Your task to perform on an android device: open app "Speedtest by Ookla" (install if not already installed) Image 0: 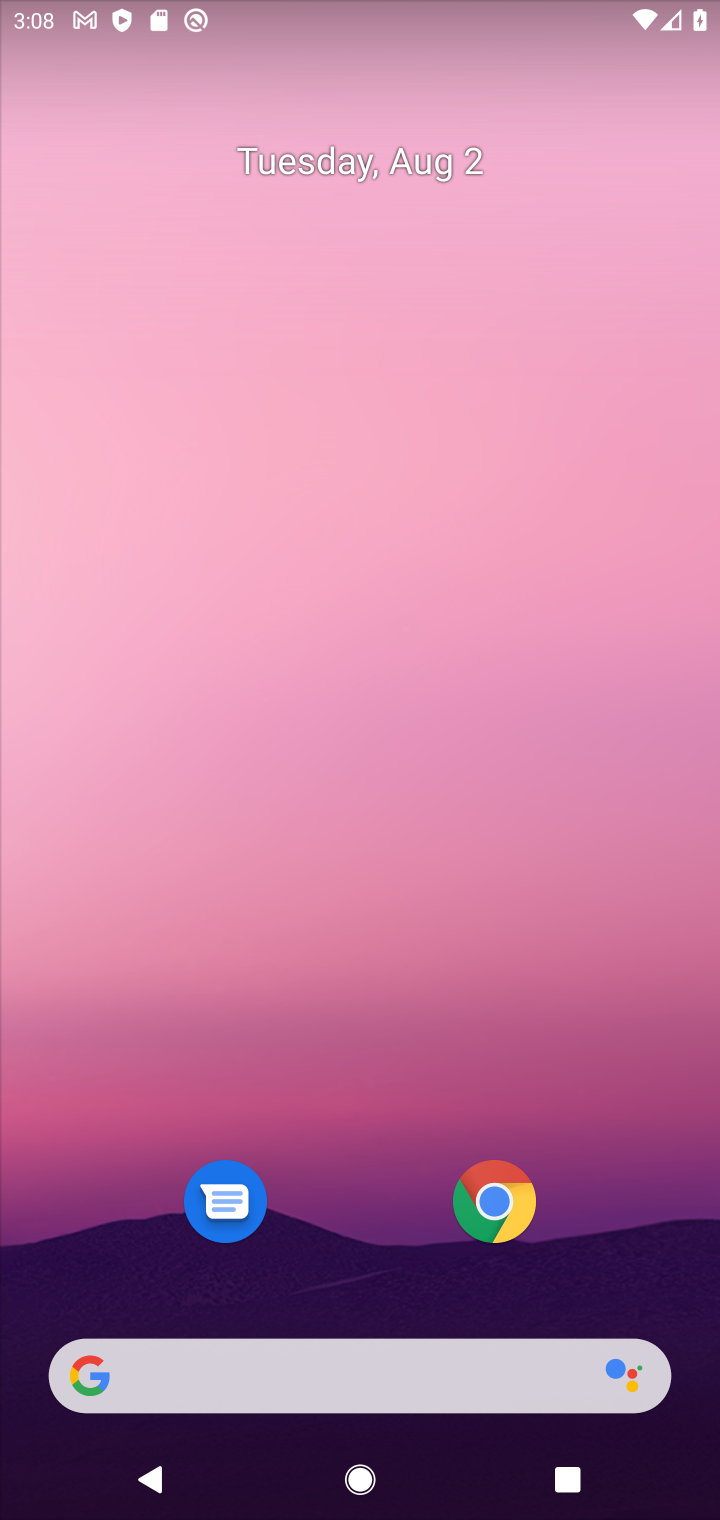
Step 0: press home button
Your task to perform on an android device: open app "Speedtest by Ookla" (install if not already installed) Image 1: 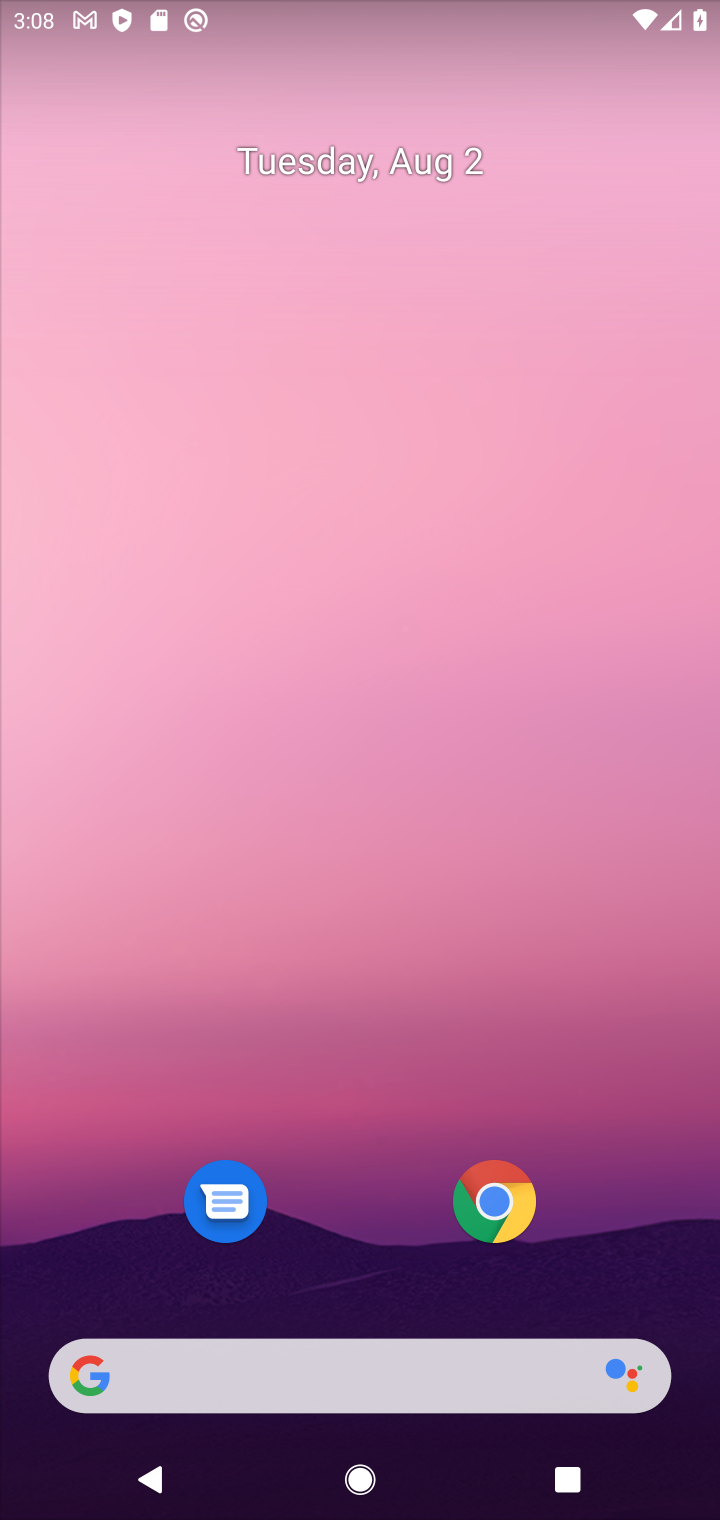
Step 1: drag from (380, 1312) to (369, 145)
Your task to perform on an android device: open app "Speedtest by Ookla" (install if not already installed) Image 2: 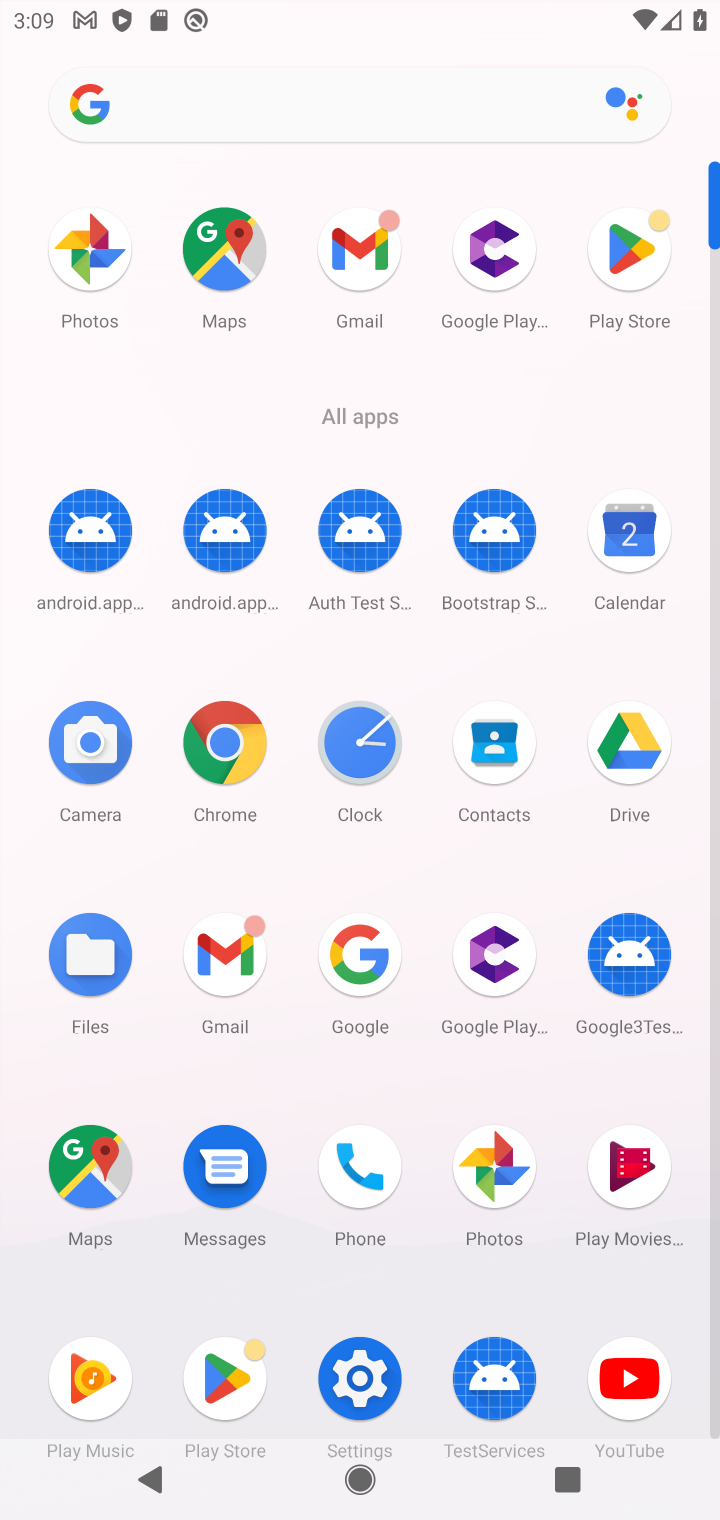
Step 2: click (613, 232)
Your task to perform on an android device: open app "Speedtest by Ookla" (install if not already installed) Image 3: 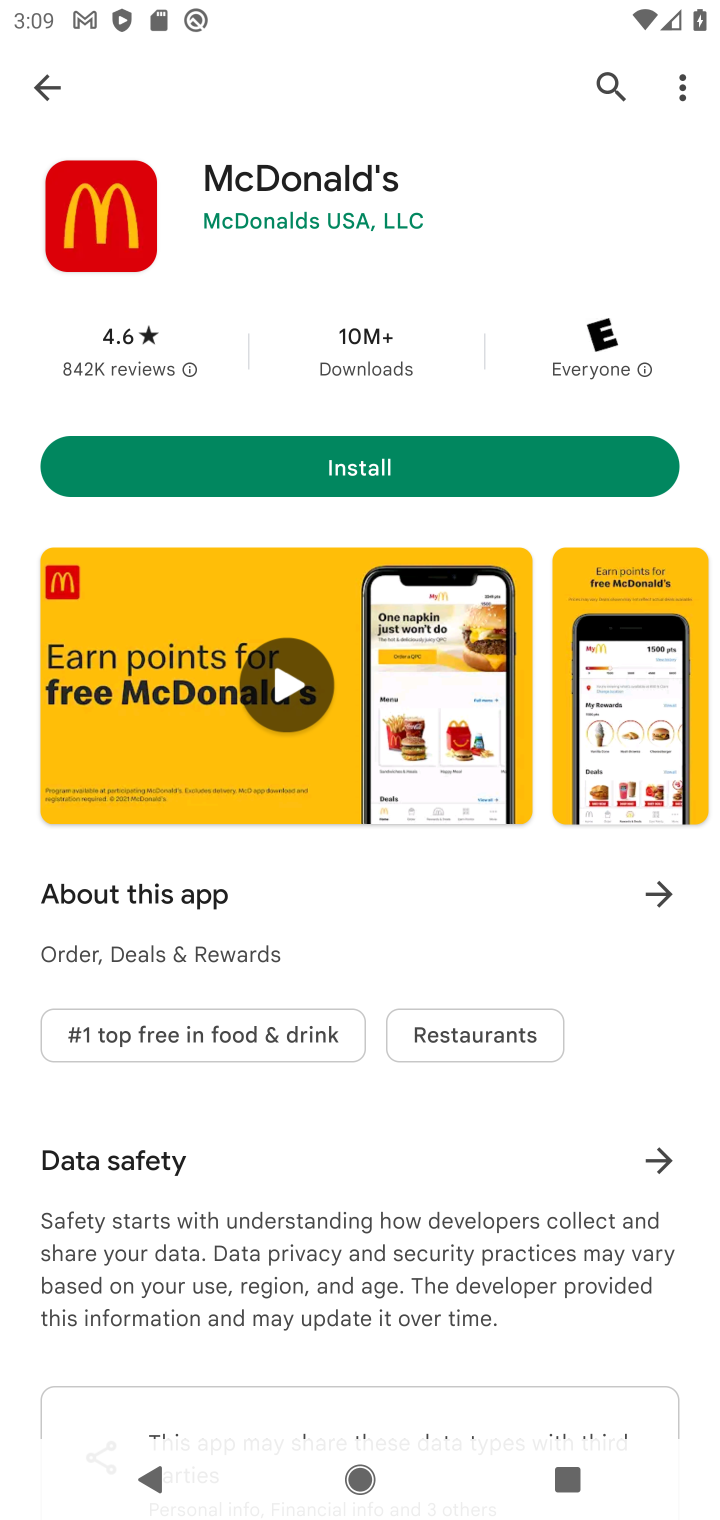
Step 3: click (608, 88)
Your task to perform on an android device: open app "Speedtest by Ookla" (install if not already installed) Image 4: 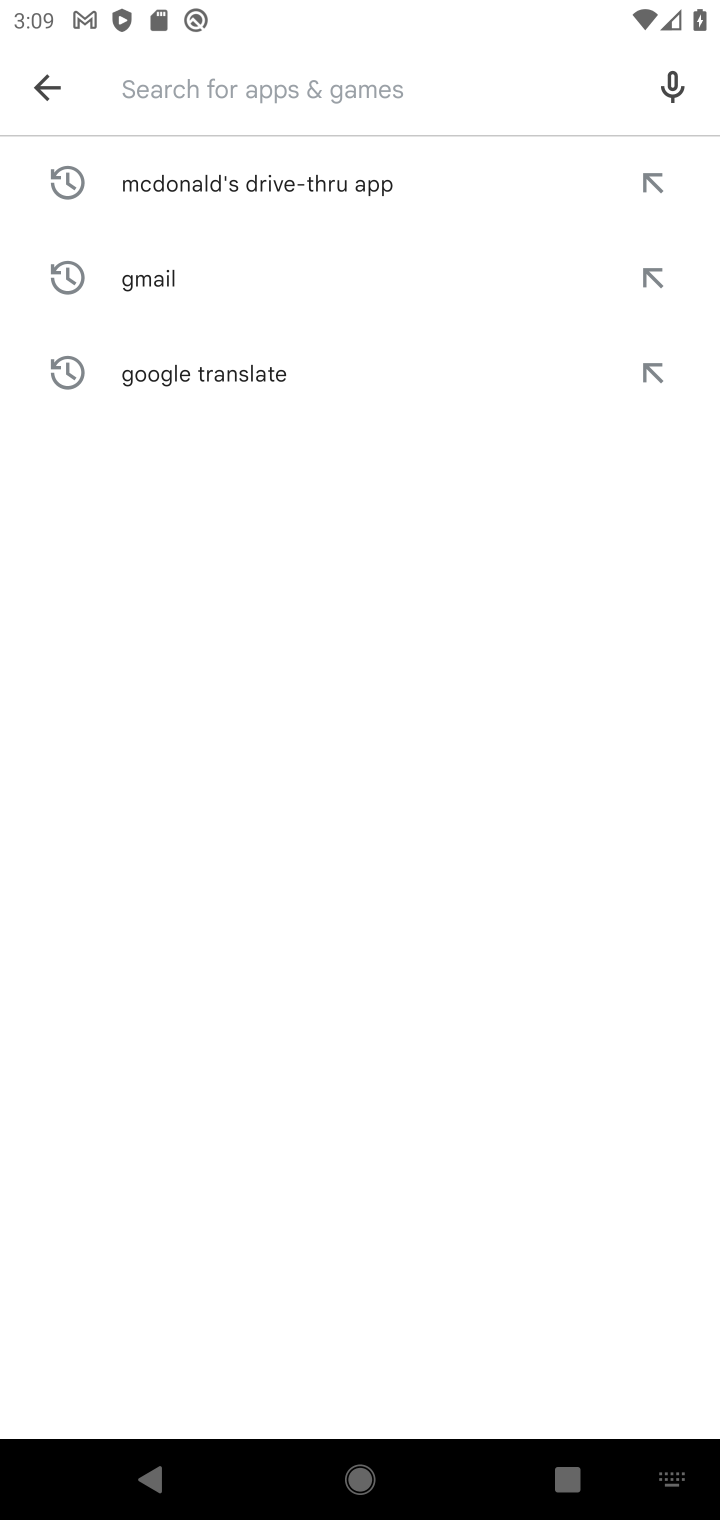
Step 4: type "Speedtest by Ookla"
Your task to perform on an android device: open app "Speedtest by Ookla" (install if not already installed) Image 5: 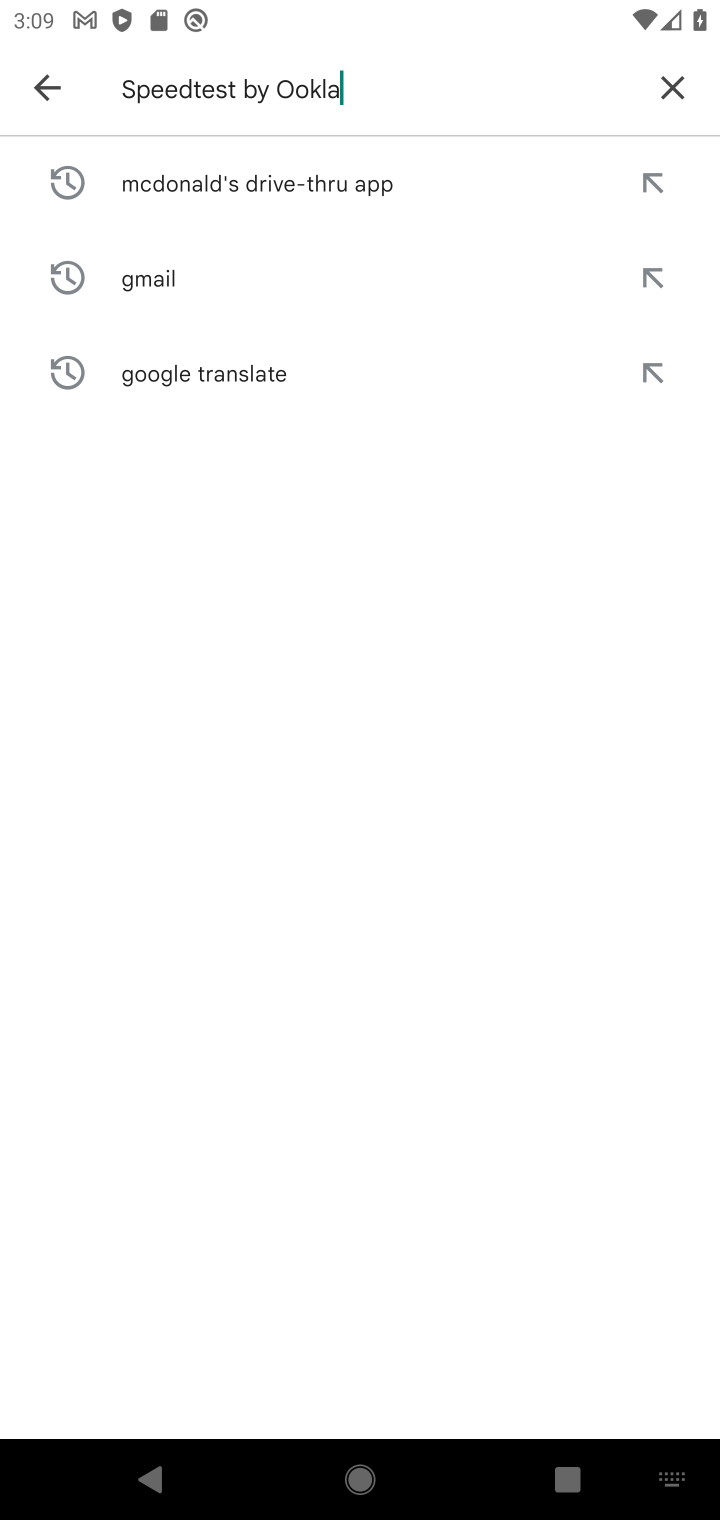
Step 5: type ""
Your task to perform on an android device: open app "Speedtest by Ookla" (install if not already installed) Image 6: 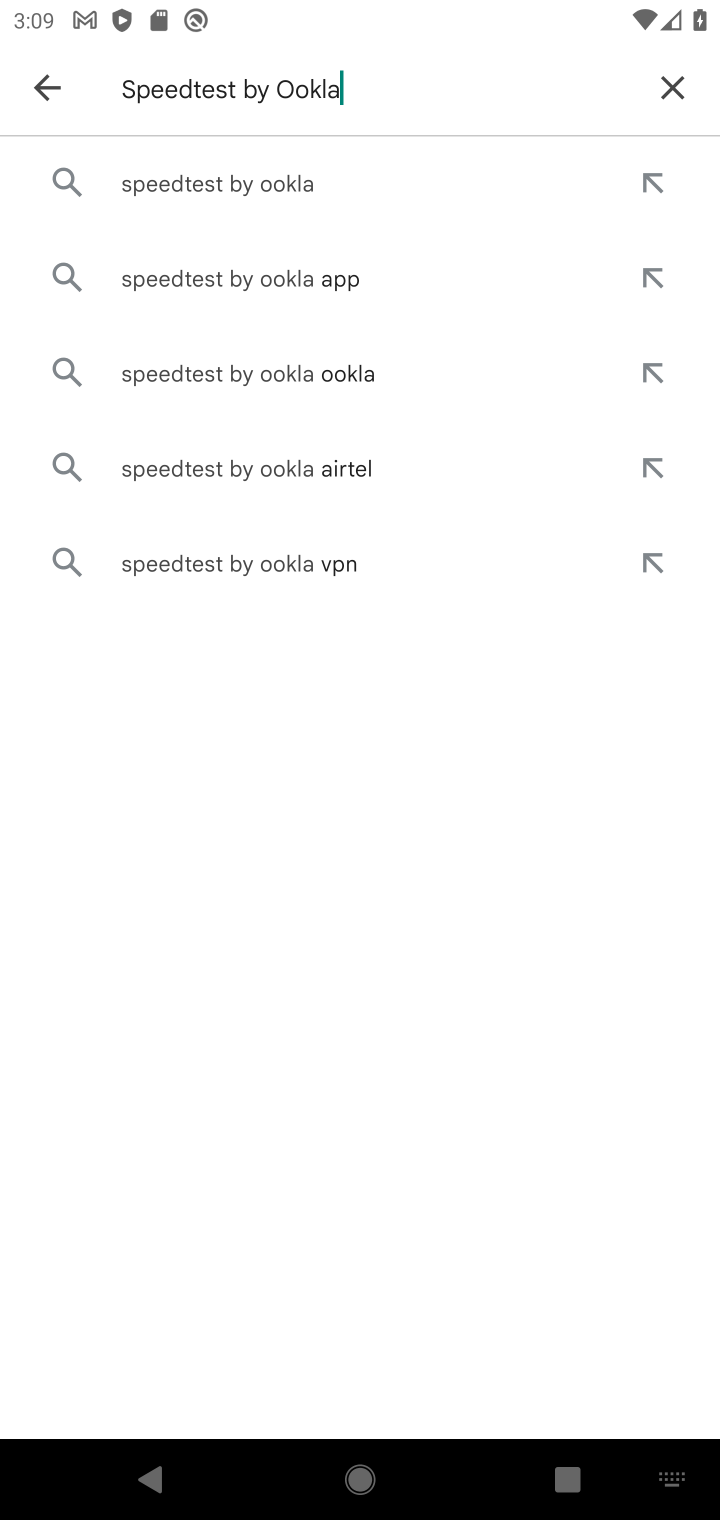
Step 6: click (293, 169)
Your task to perform on an android device: open app "Speedtest by Ookla" (install if not already installed) Image 7: 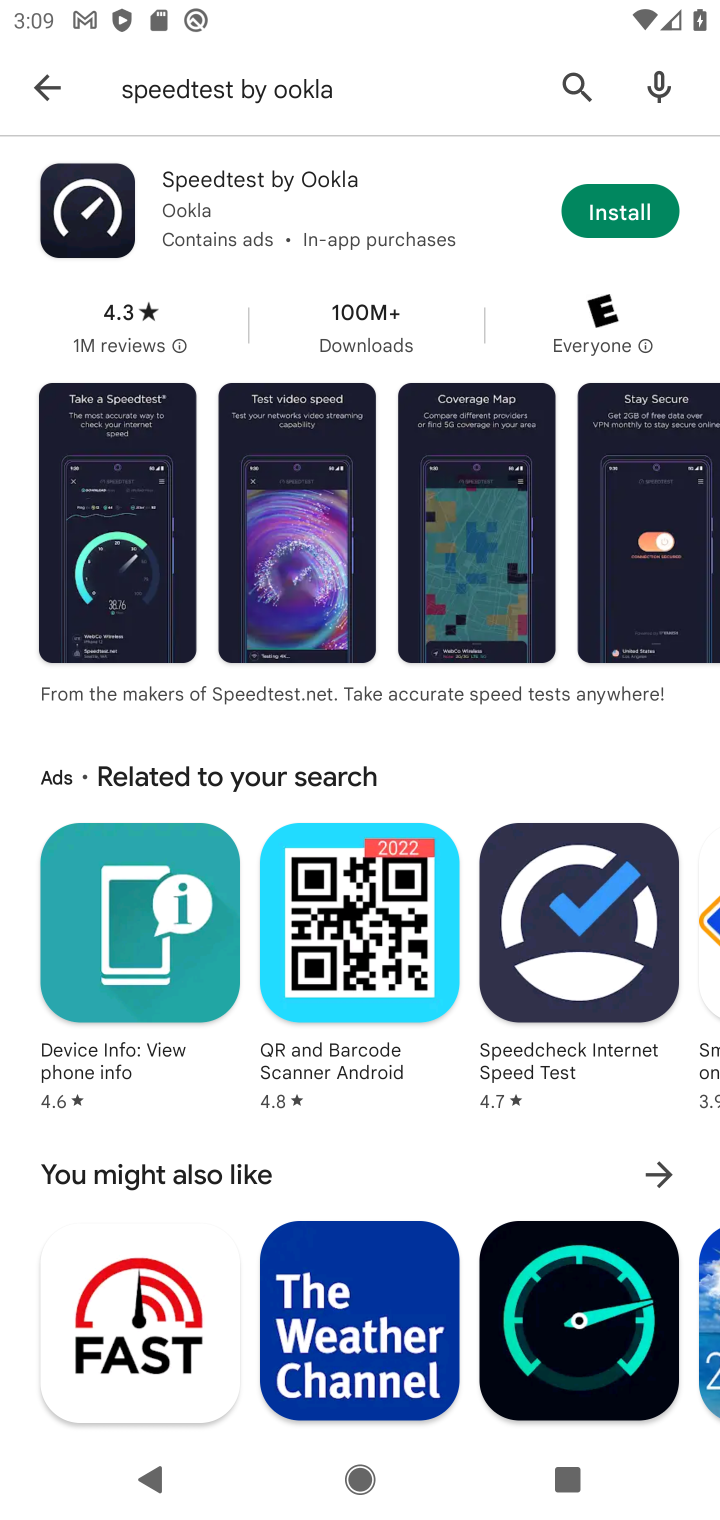
Step 7: click (625, 212)
Your task to perform on an android device: open app "Speedtest by Ookla" (install if not already installed) Image 8: 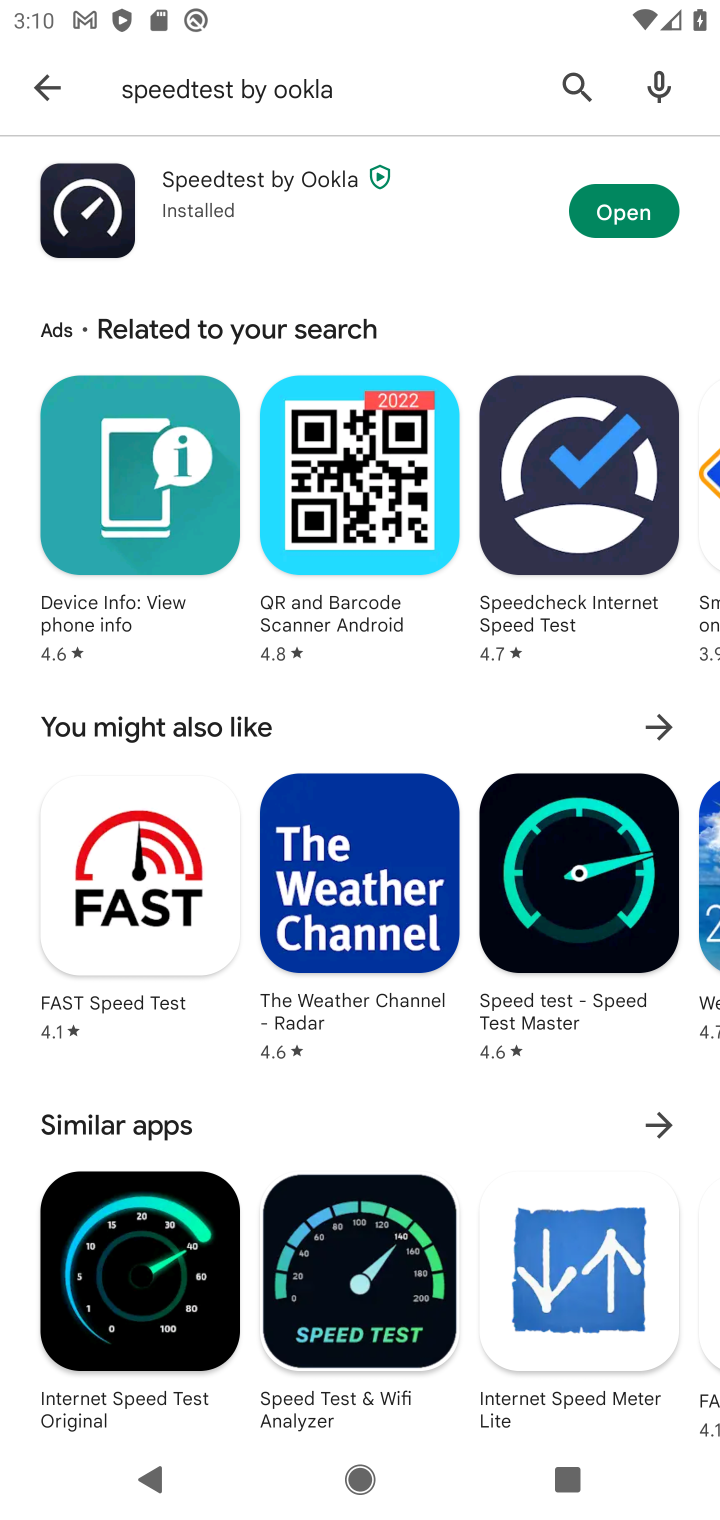
Step 8: click (629, 208)
Your task to perform on an android device: open app "Speedtest by Ookla" (install if not already installed) Image 9: 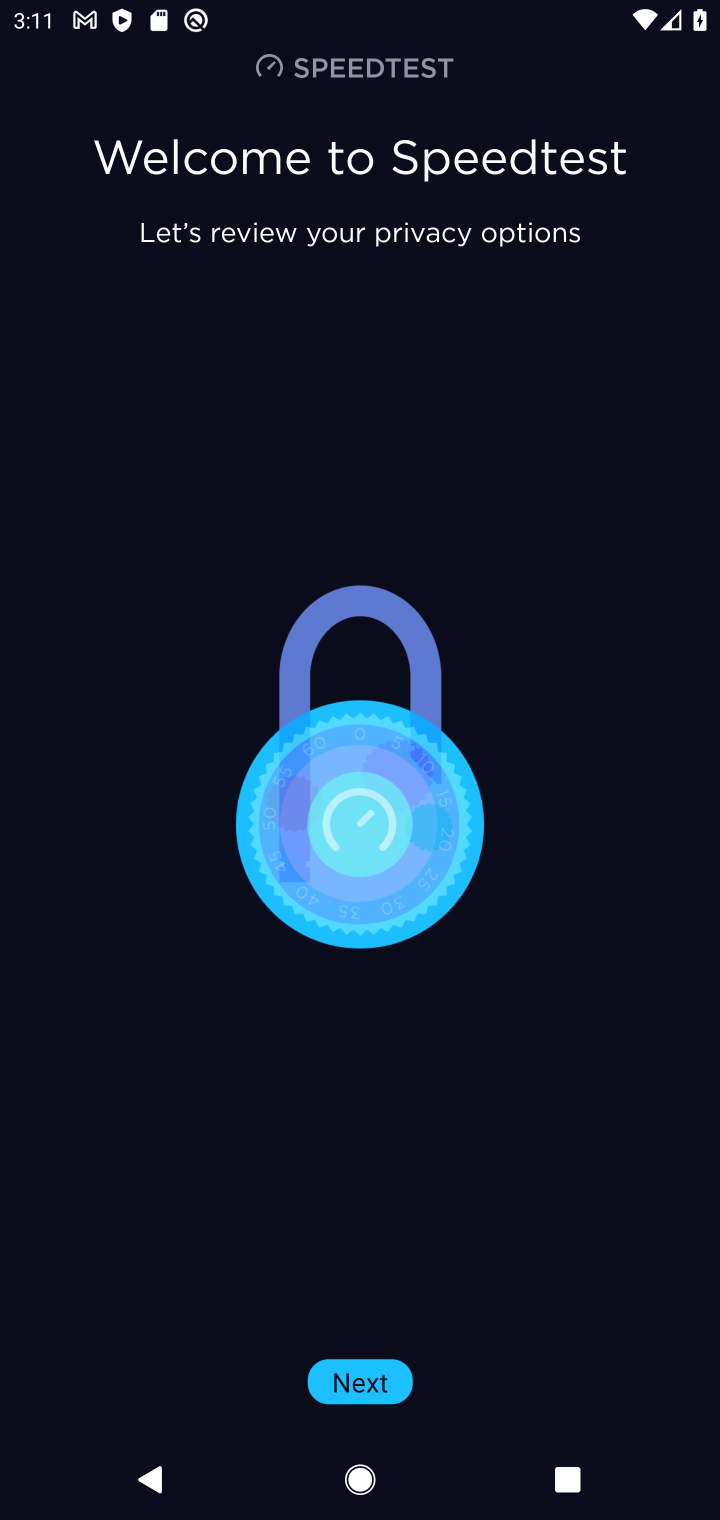
Step 9: click (374, 1381)
Your task to perform on an android device: open app "Speedtest by Ookla" (install if not already installed) Image 10: 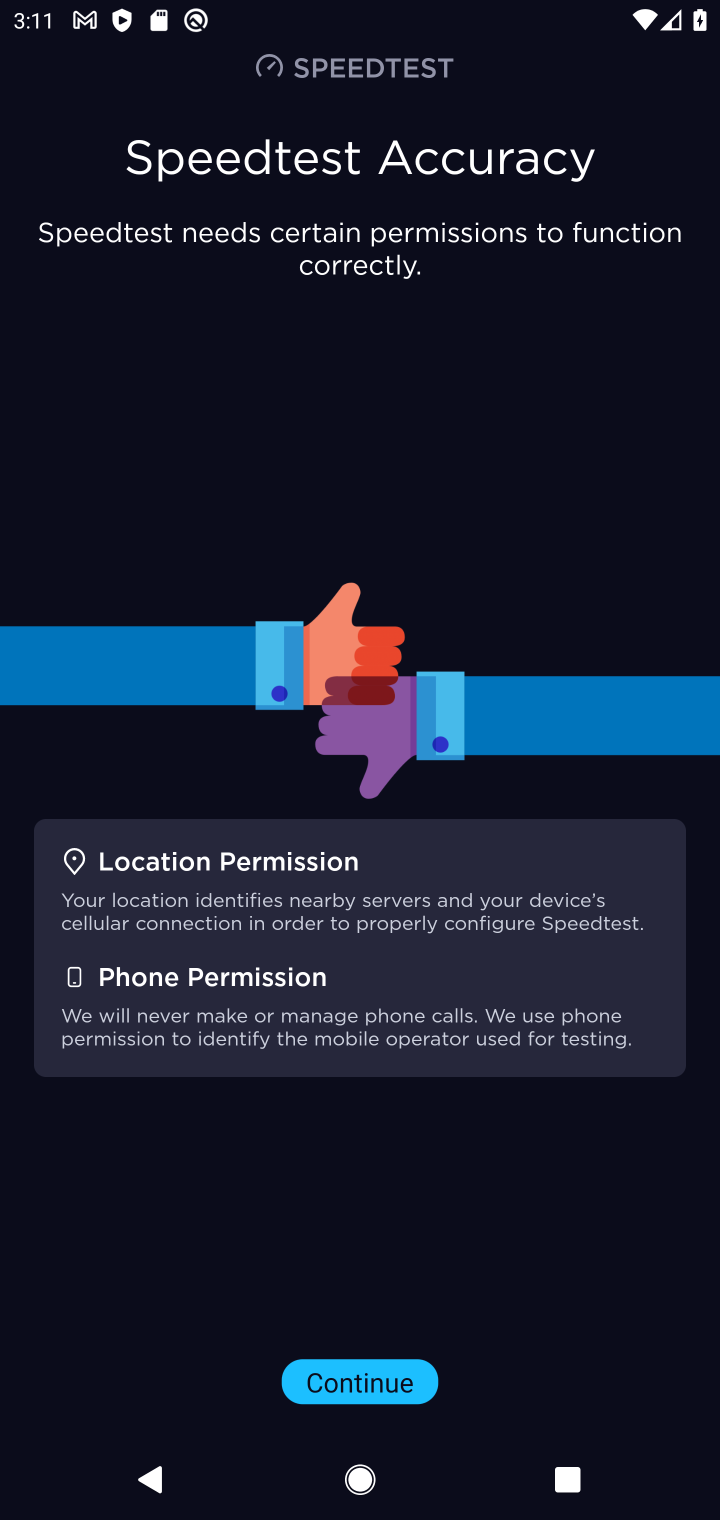
Step 10: click (361, 1377)
Your task to perform on an android device: open app "Speedtest by Ookla" (install if not already installed) Image 11: 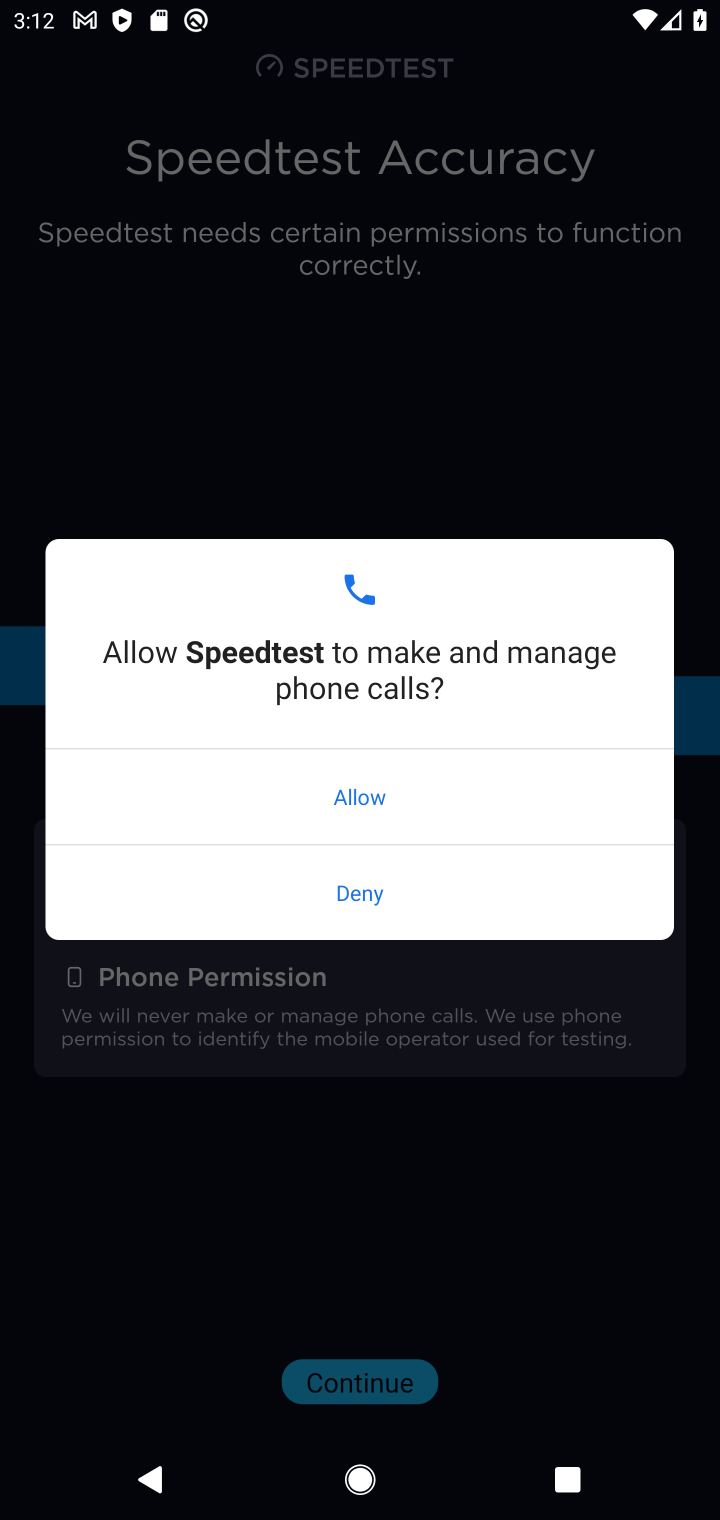
Step 11: click (380, 795)
Your task to perform on an android device: open app "Speedtest by Ookla" (install if not already installed) Image 12: 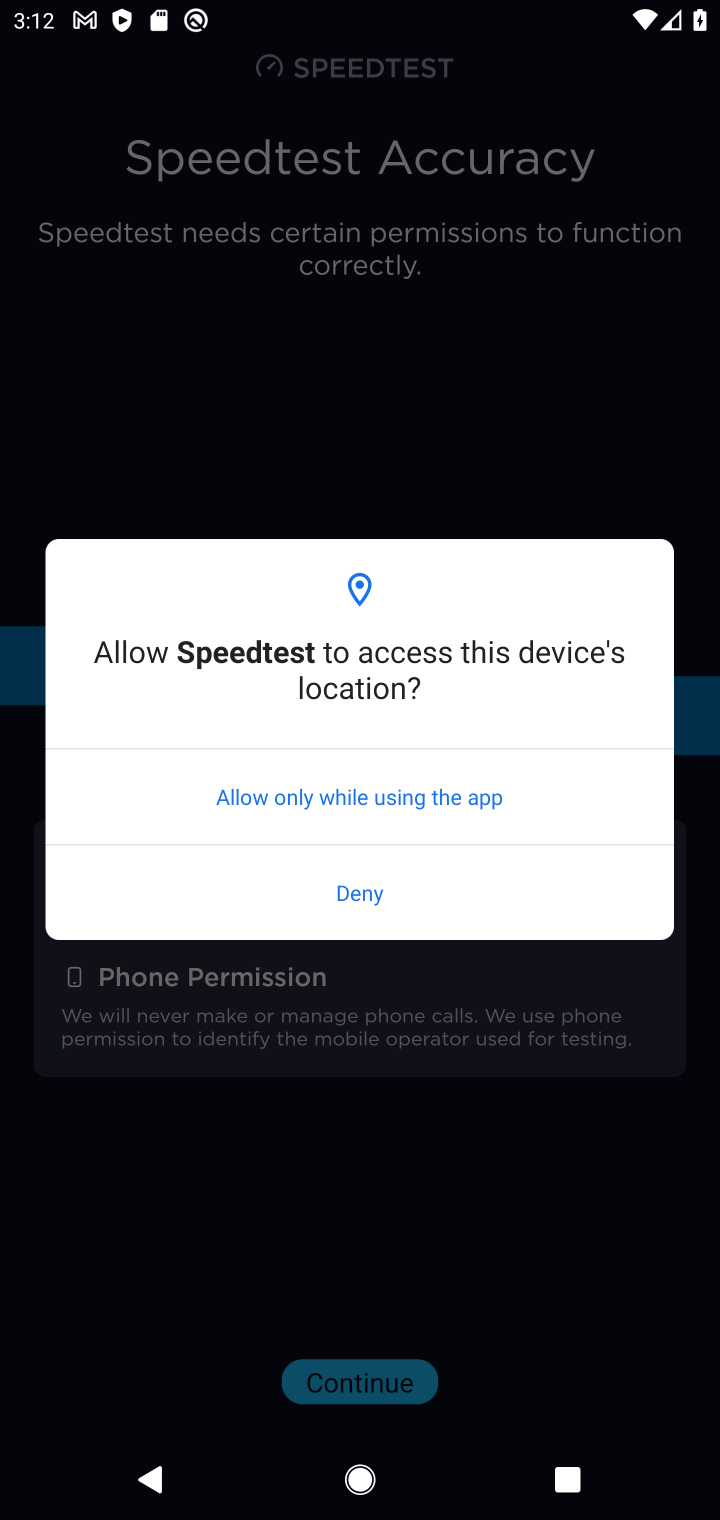
Step 12: click (400, 786)
Your task to perform on an android device: open app "Speedtest by Ookla" (install if not already installed) Image 13: 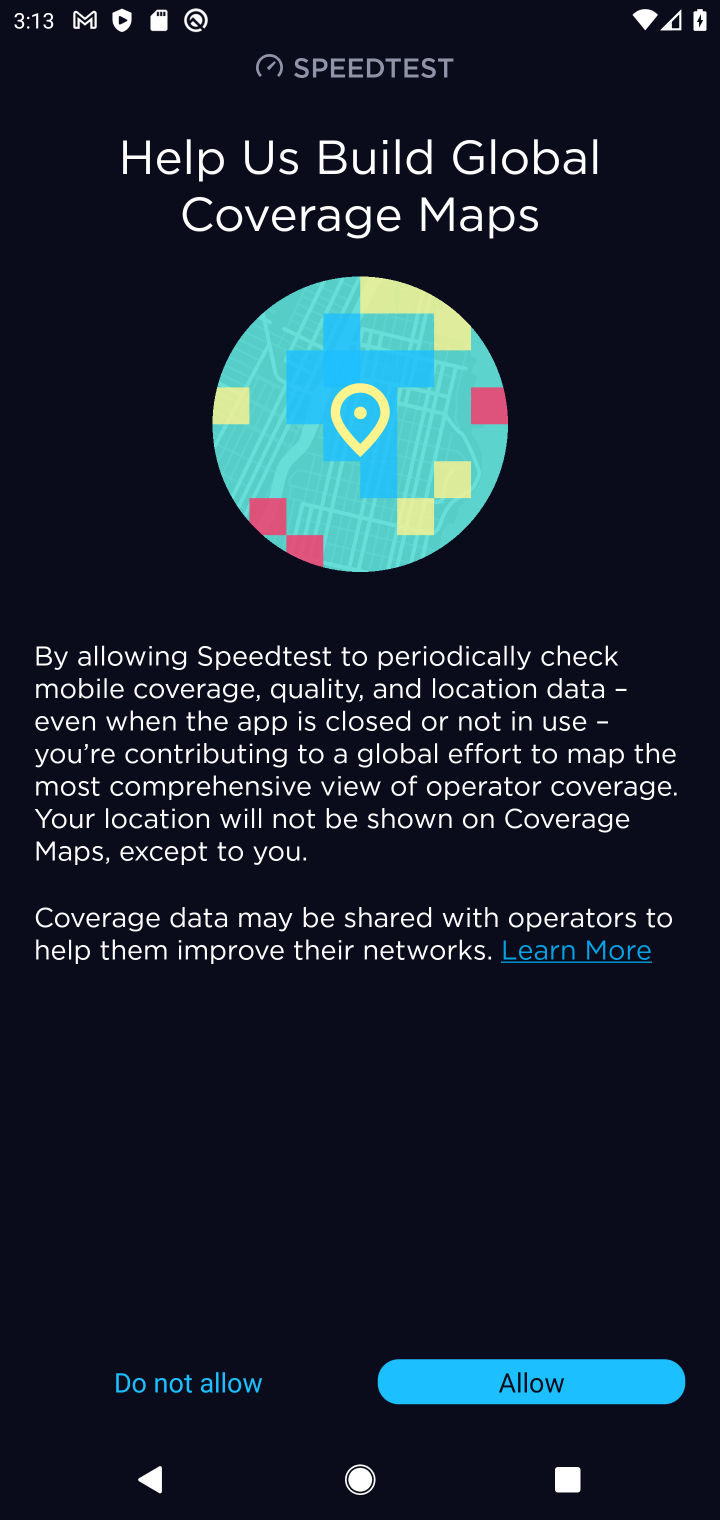
Step 13: task complete